Your task to perform on an android device: Search for Italian restaurants on Maps Image 0: 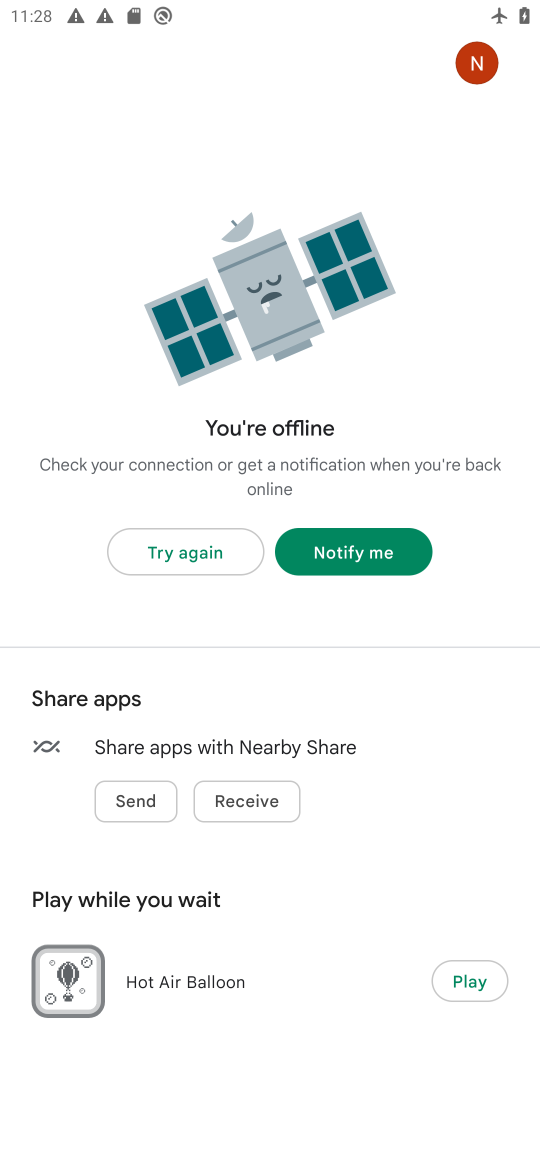
Step 0: press home button
Your task to perform on an android device: Search for Italian restaurants on Maps Image 1: 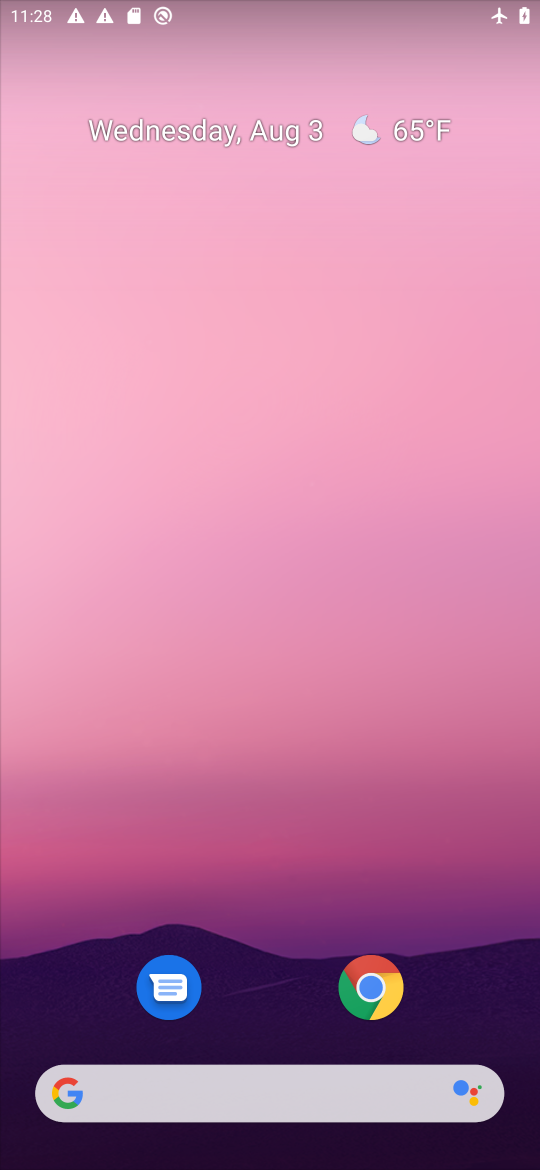
Step 1: drag from (232, 1018) to (204, 615)
Your task to perform on an android device: Search for Italian restaurants on Maps Image 2: 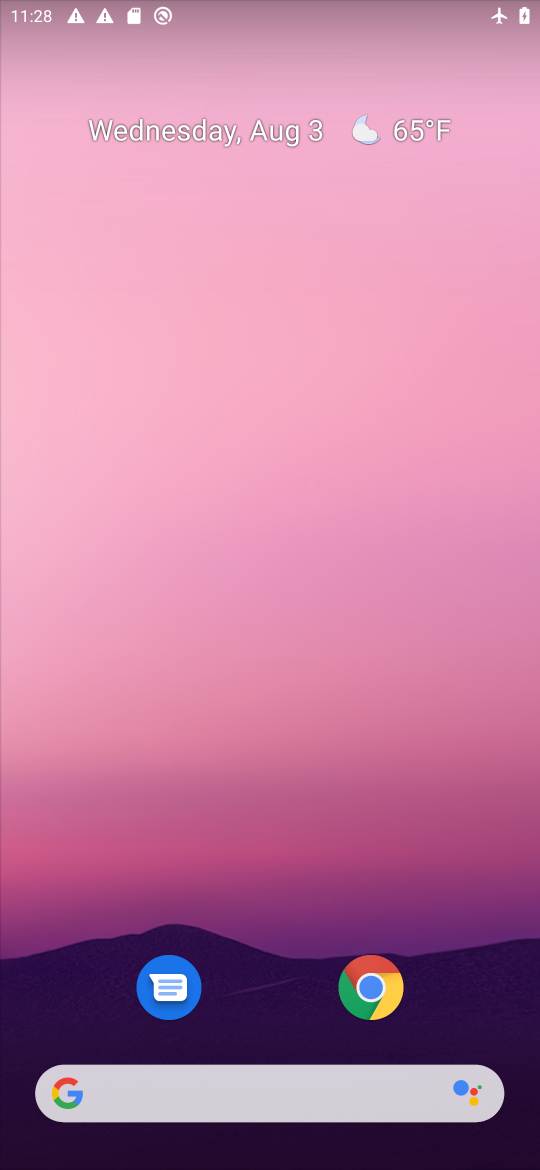
Step 2: drag from (283, 995) to (279, 430)
Your task to perform on an android device: Search for Italian restaurants on Maps Image 3: 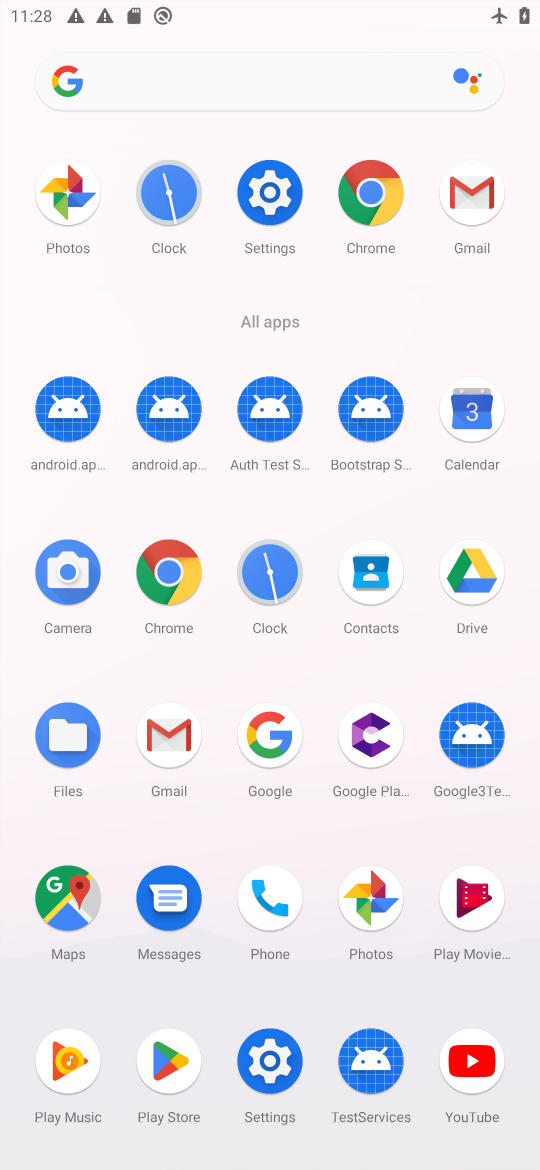
Step 3: click (56, 916)
Your task to perform on an android device: Search for Italian restaurants on Maps Image 4: 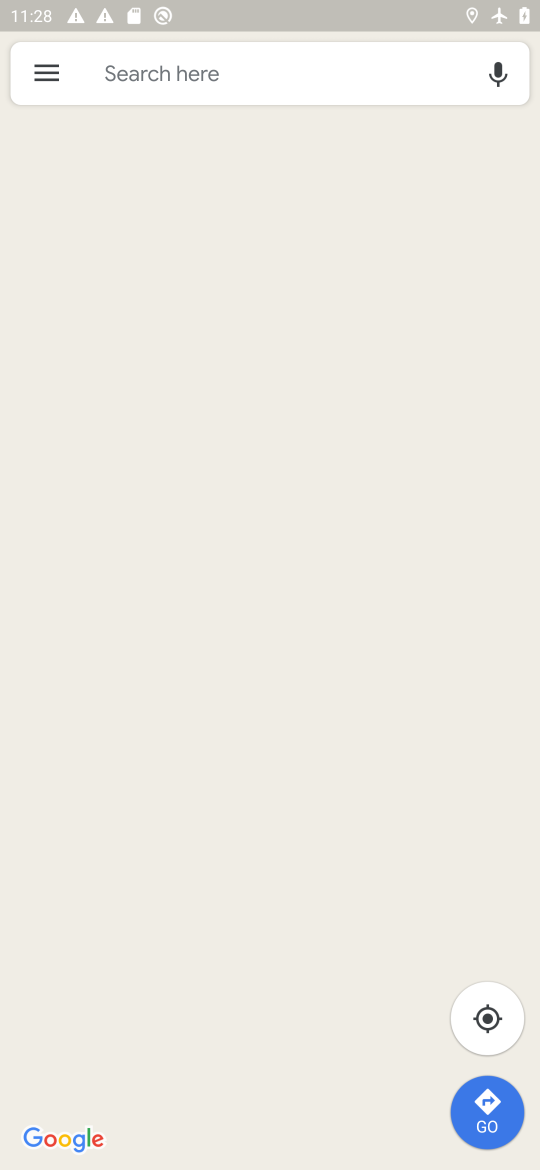
Step 4: click (181, 72)
Your task to perform on an android device: Search for Italian restaurants on Maps Image 5: 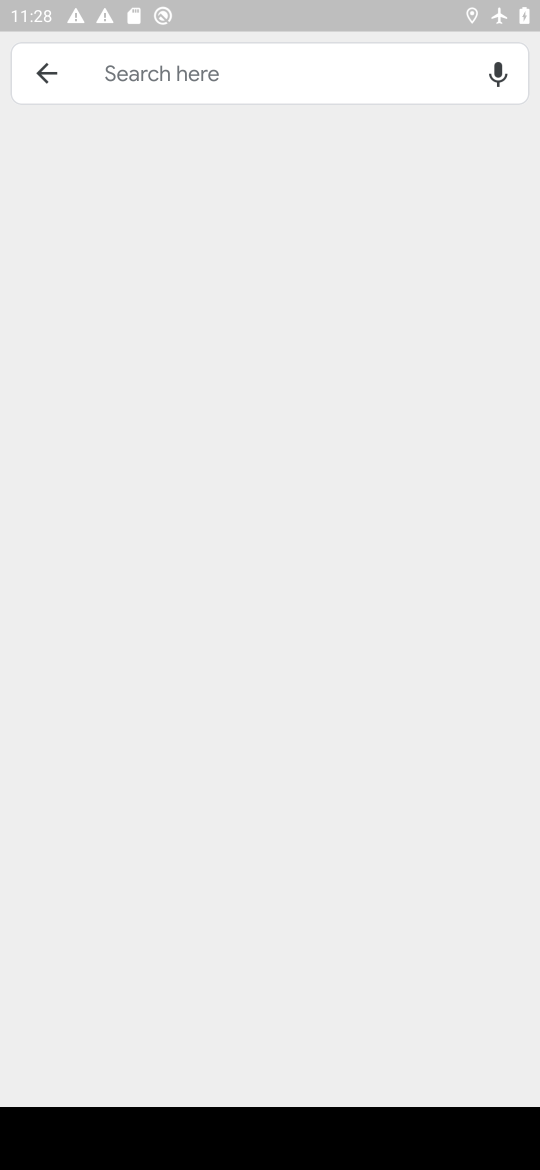
Step 5: click (155, 66)
Your task to perform on an android device: Search for Italian restaurants on Maps Image 6: 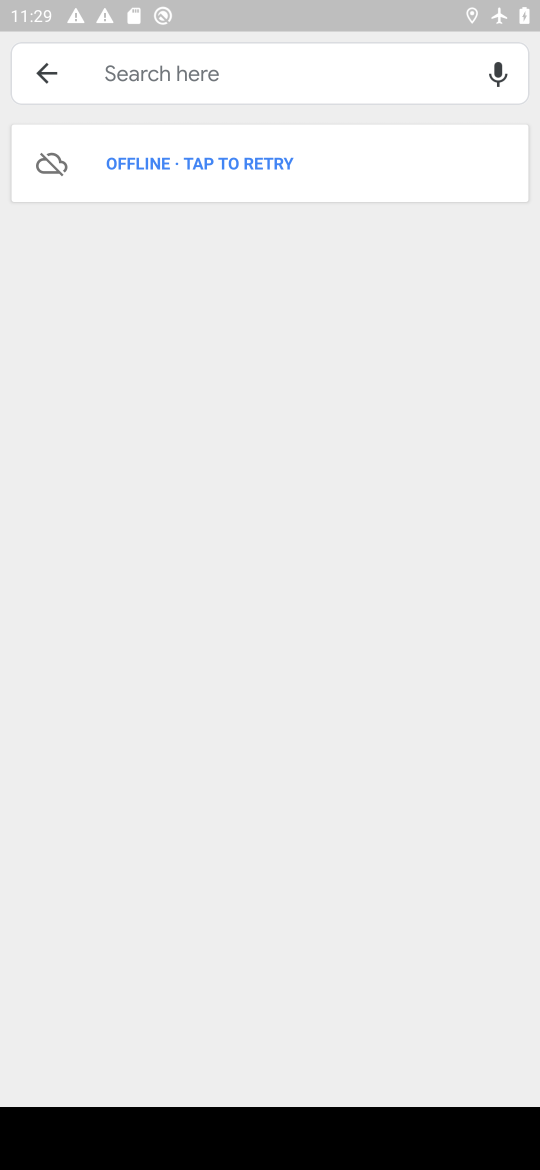
Step 6: click (230, 155)
Your task to perform on an android device: Search for Italian restaurants on Maps Image 7: 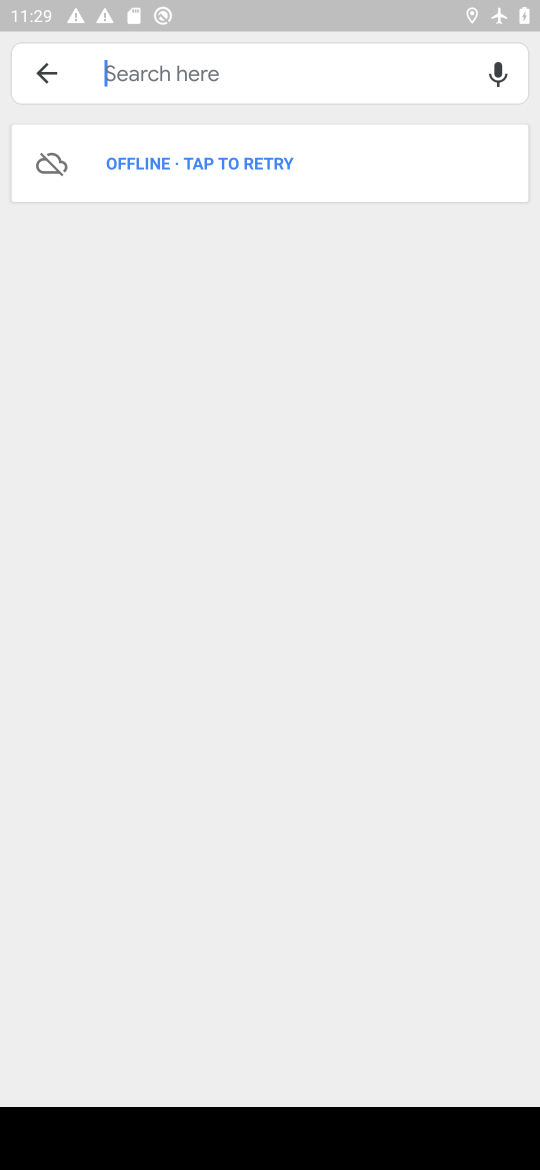
Step 7: drag from (351, 99) to (356, 452)
Your task to perform on an android device: Search for Italian restaurants on Maps Image 8: 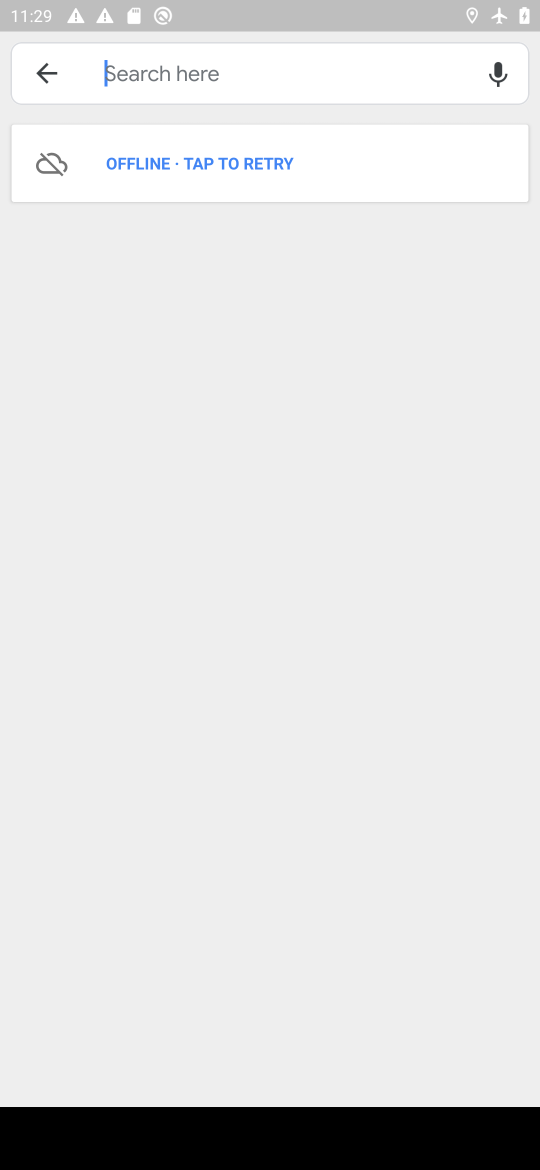
Step 8: drag from (306, 3) to (358, 442)
Your task to perform on an android device: Search for Italian restaurants on Maps Image 9: 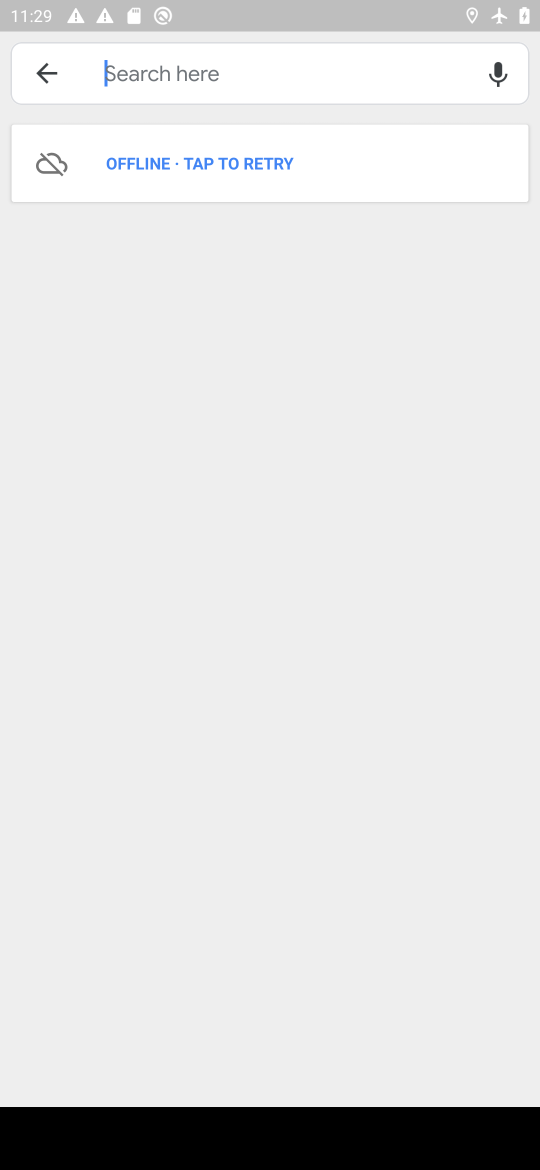
Step 9: drag from (410, 6) to (409, 721)
Your task to perform on an android device: Search for Italian restaurants on Maps Image 10: 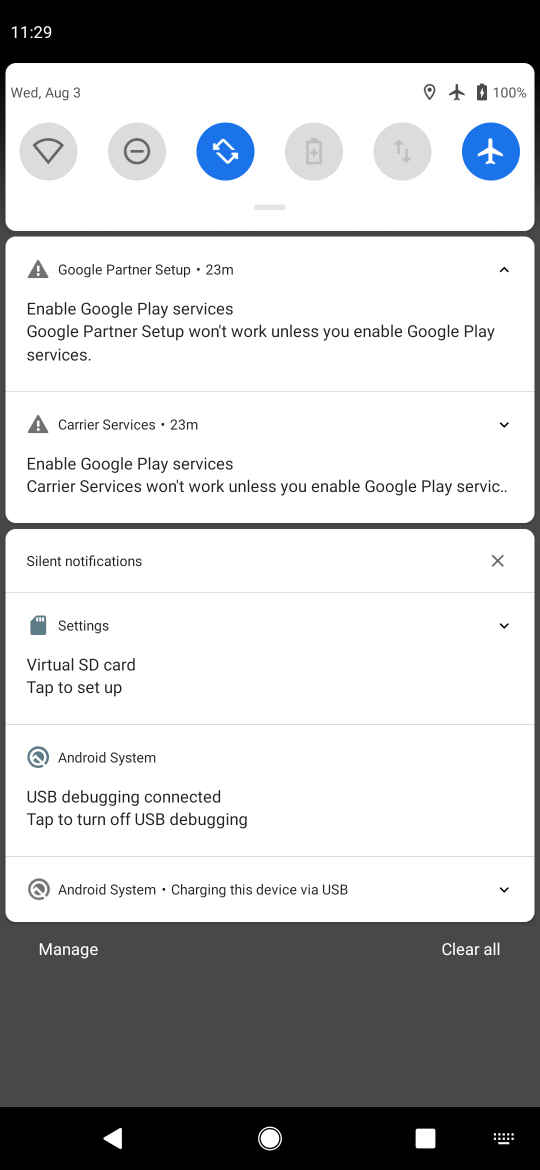
Step 10: click (492, 142)
Your task to perform on an android device: Search for Italian restaurants on Maps Image 11: 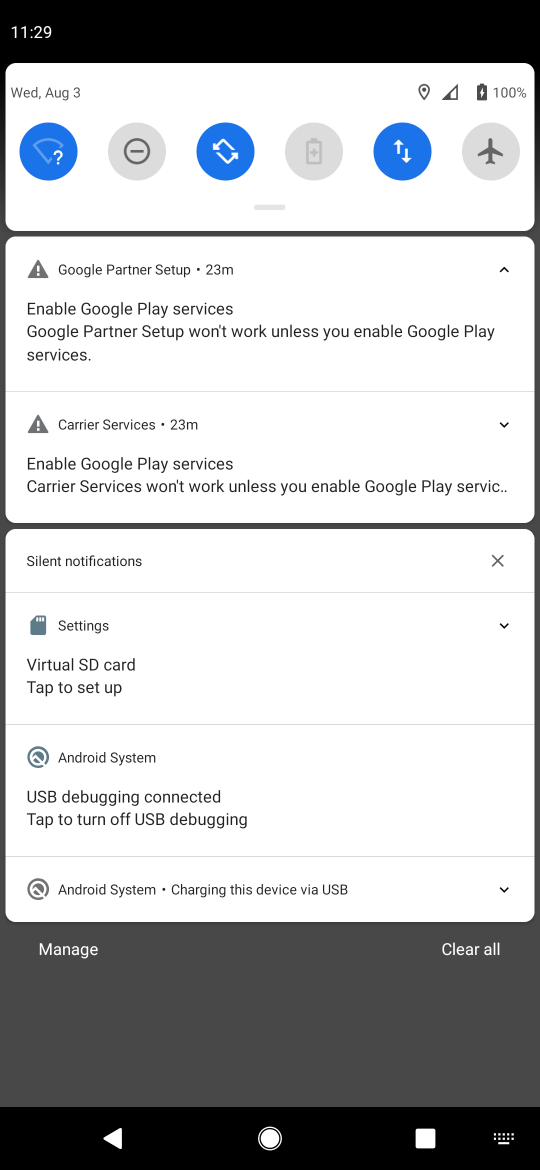
Step 11: click (436, 953)
Your task to perform on an android device: Search for Italian restaurants on Maps Image 12: 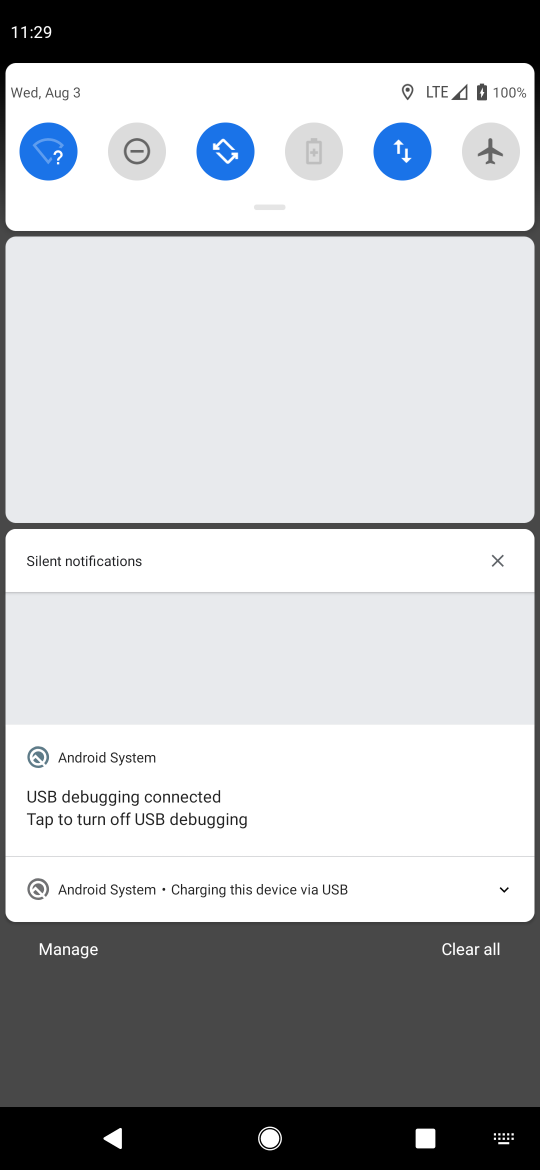
Step 12: click (442, 953)
Your task to perform on an android device: Search for Italian restaurants on Maps Image 13: 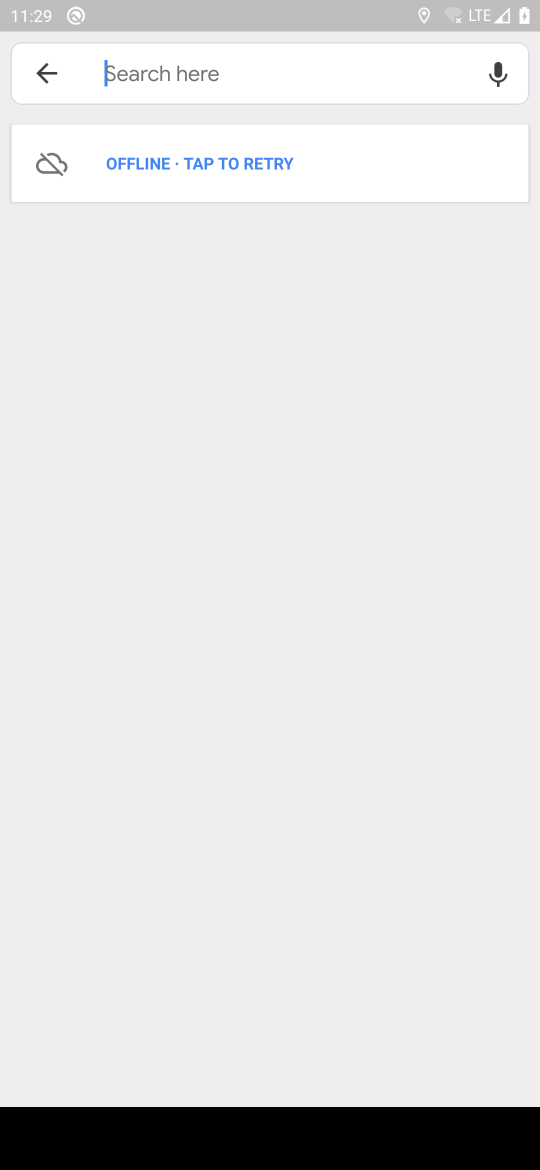
Step 13: click (211, 67)
Your task to perform on an android device: Search for Italian restaurants on Maps Image 14: 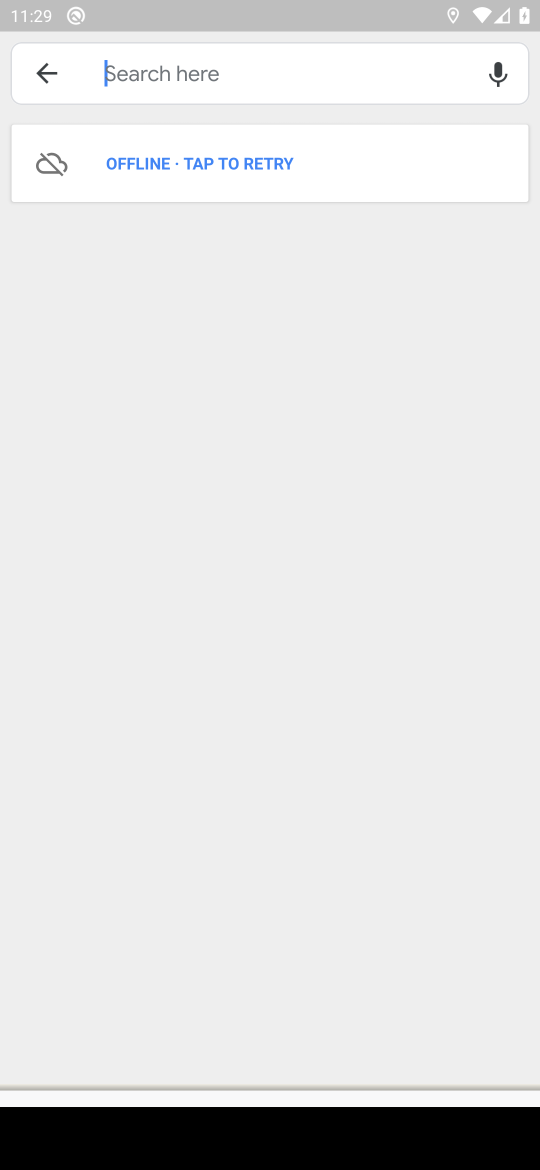
Step 14: click (172, 165)
Your task to perform on an android device: Search for Italian restaurants on Maps Image 15: 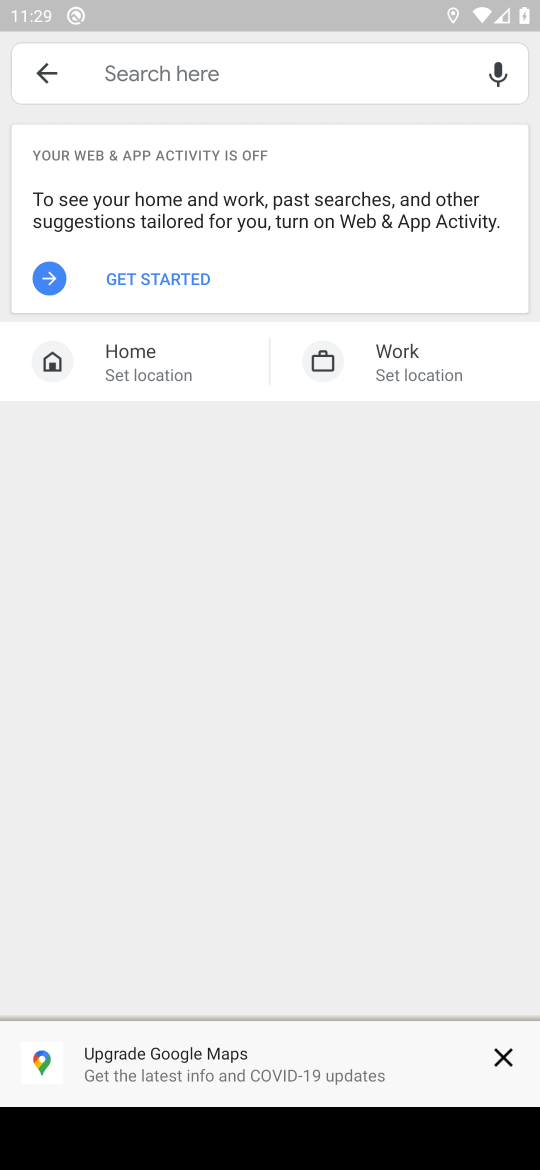
Step 15: click (156, 67)
Your task to perform on an android device: Search for Italian restaurants on Maps Image 16: 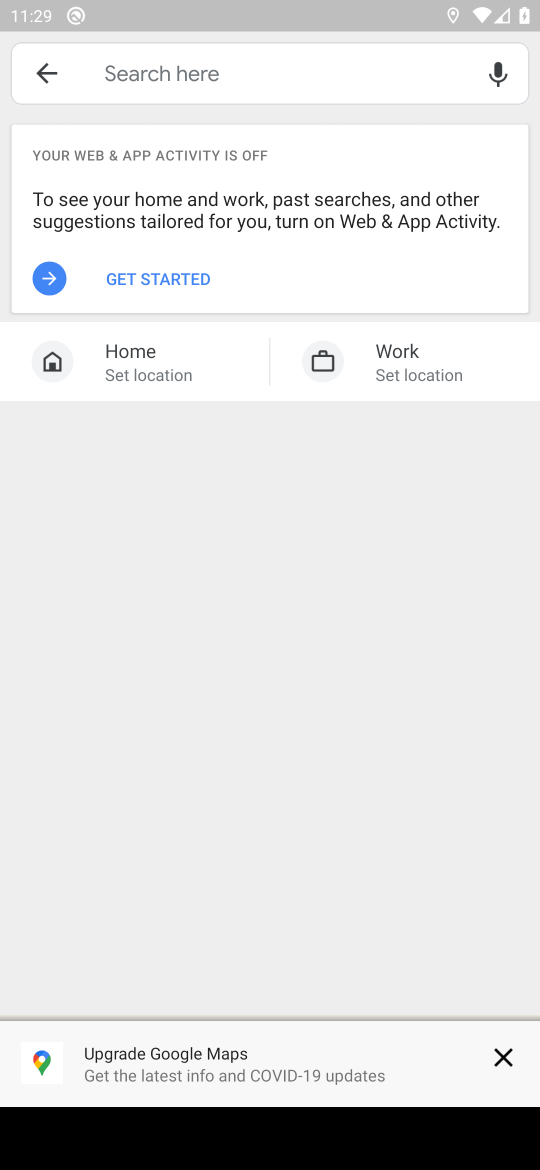
Step 16: click (167, 206)
Your task to perform on an android device: Search for Italian restaurants on Maps Image 17: 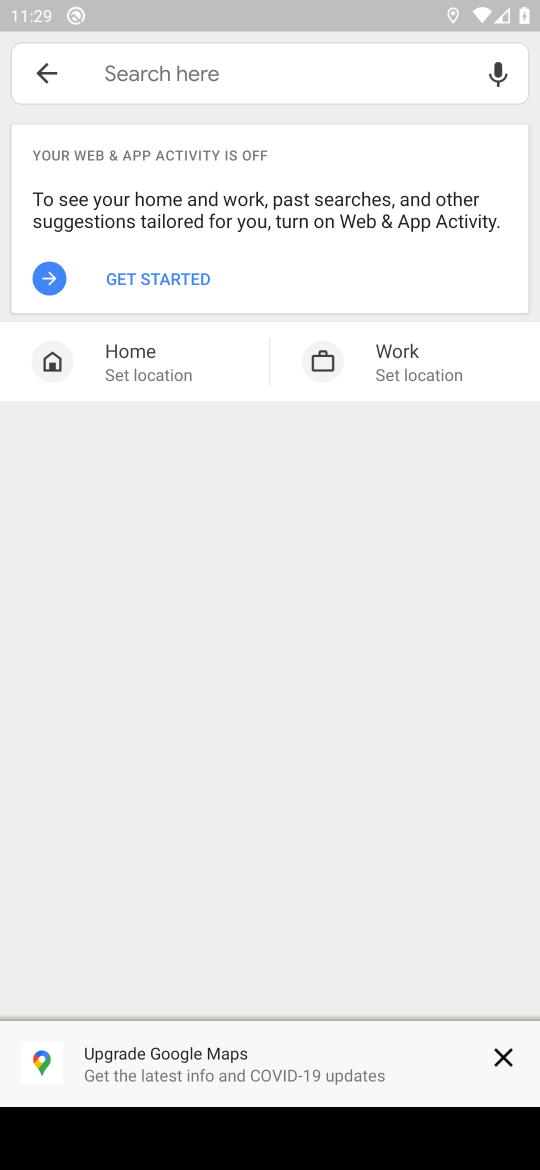
Step 17: type "Italian restaurants "
Your task to perform on an android device: Search for Italian restaurants on Maps Image 18: 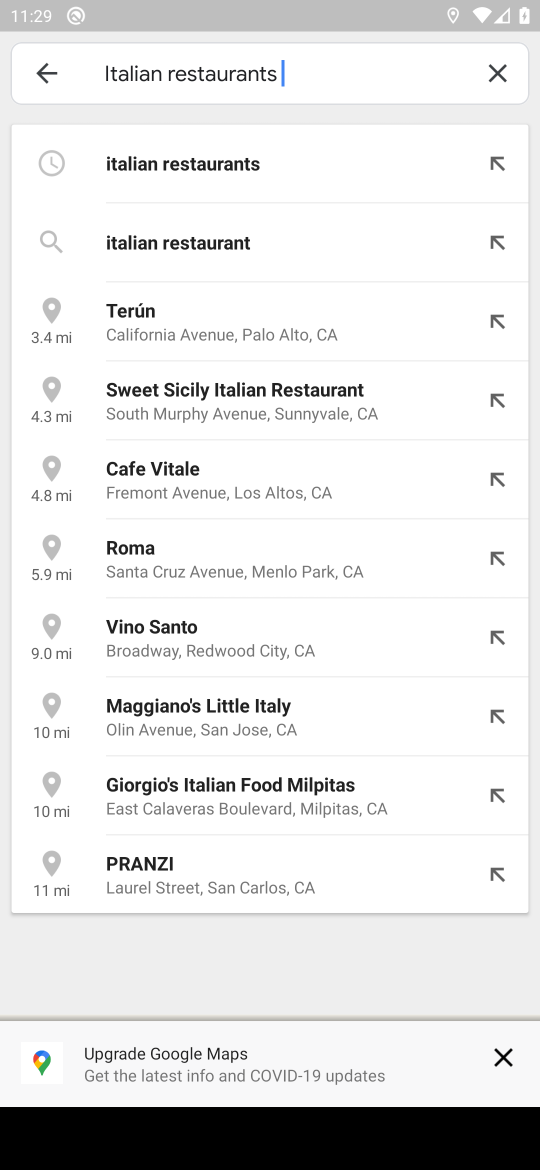
Step 18: click (156, 154)
Your task to perform on an android device: Search for Italian restaurants on Maps Image 19: 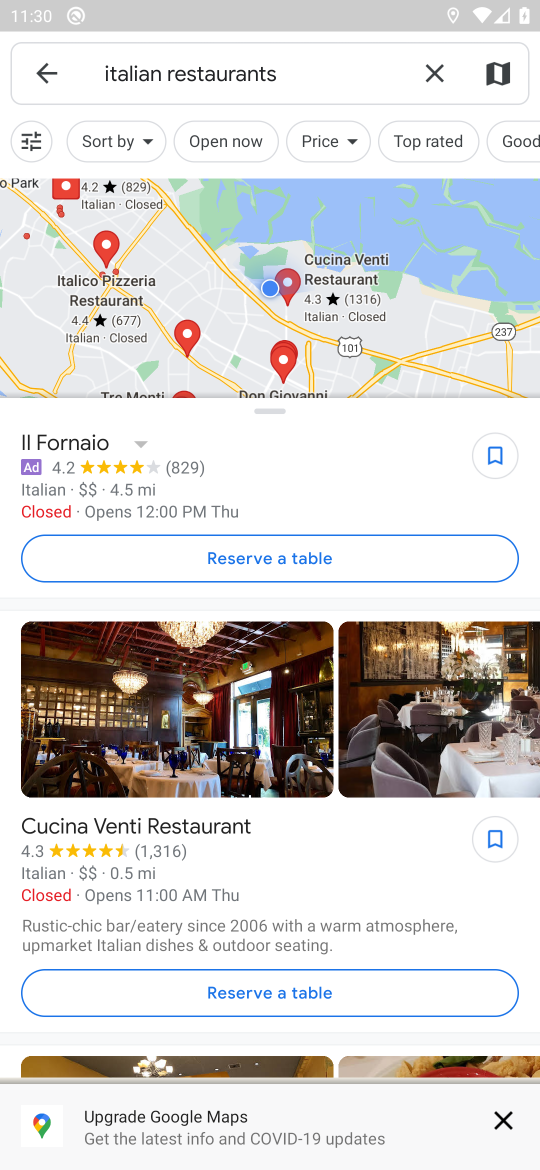
Step 19: task complete